Your task to perform on an android device: uninstall "Booking.com: Hotels and more" Image 0: 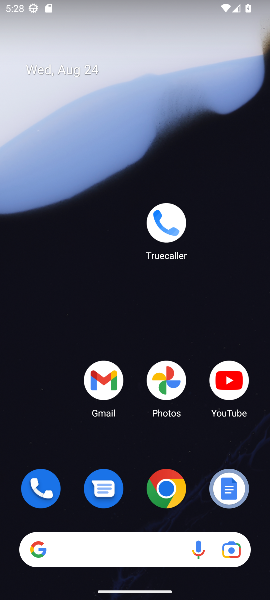
Step 0: drag from (141, 524) to (119, 81)
Your task to perform on an android device: uninstall "Booking.com: Hotels and more" Image 1: 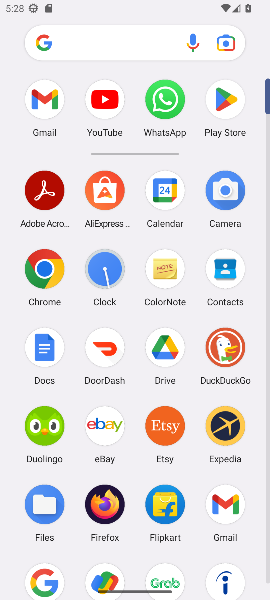
Step 1: click (213, 103)
Your task to perform on an android device: uninstall "Booking.com: Hotels and more" Image 2: 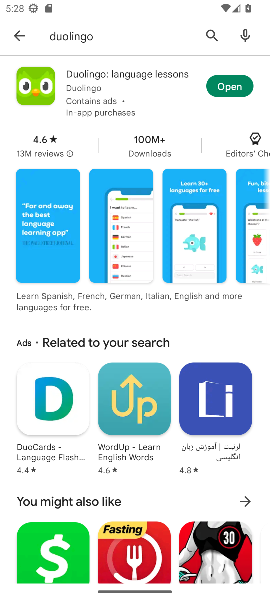
Step 2: click (226, 39)
Your task to perform on an android device: uninstall "Booking.com: Hotels and more" Image 3: 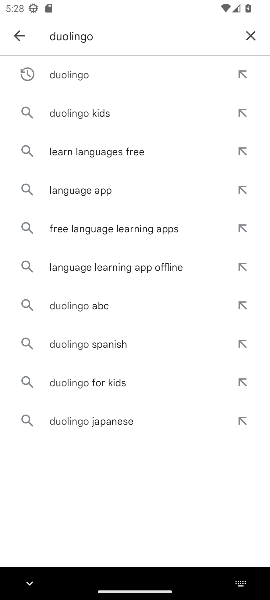
Step 3: click (240, 36)
Your task to perform on an android device: uninstall "Booking.com: Hotels and more" Image 4: 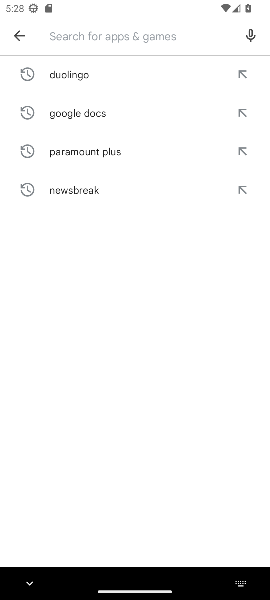
Step 4: type "booking"
Your task to perform on an android device: uninstall "Booking.com: Hotels and more" Image 5: 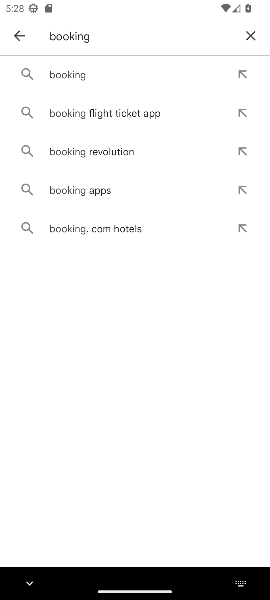
Step 5: click (84, 84)
Your task to perform on an android device: uninstall "Booking.com: Hotels and more" Image 6: 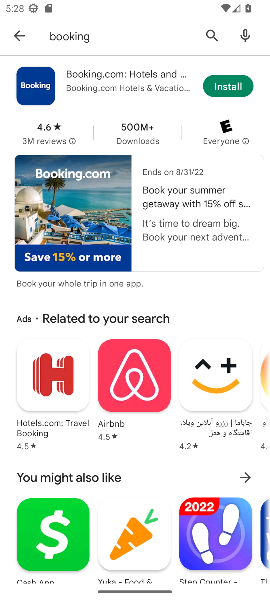
Step 6: click (227, 87)
Your task to perform on an android device: uninstall "Booking.com: Hotels and more" Image 7: 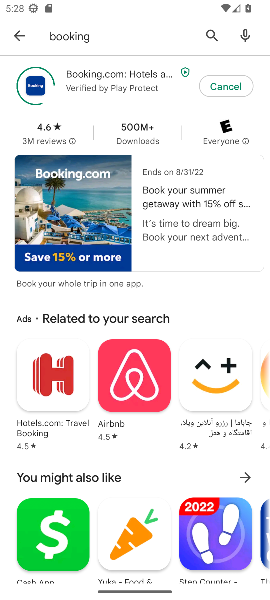
Step 7: task complete